Your task to perform on an android device: turn on data saver in the chrome app Image 0: 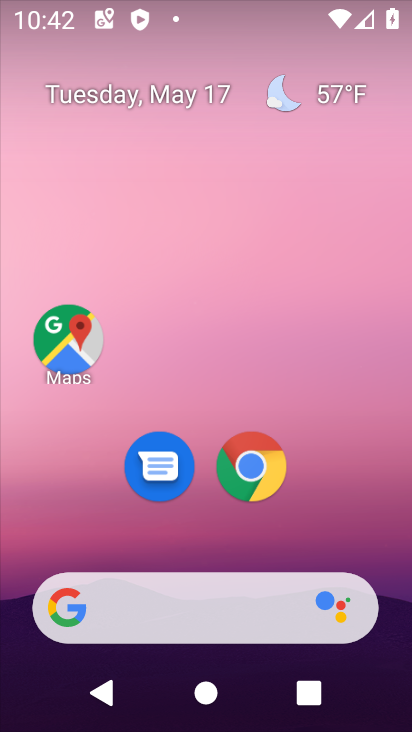
Step 0: drag from (256, 643) to (306, 151)
Your task to perform on an android device: turn on data saver in the chrome app Image 1: 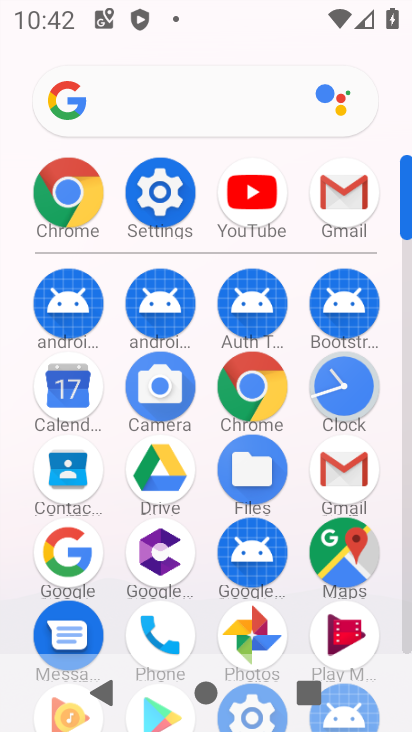
Step 1: click (44, 204)
Your task to perform on an android device: turn on data saver in the chrome app Image 2: 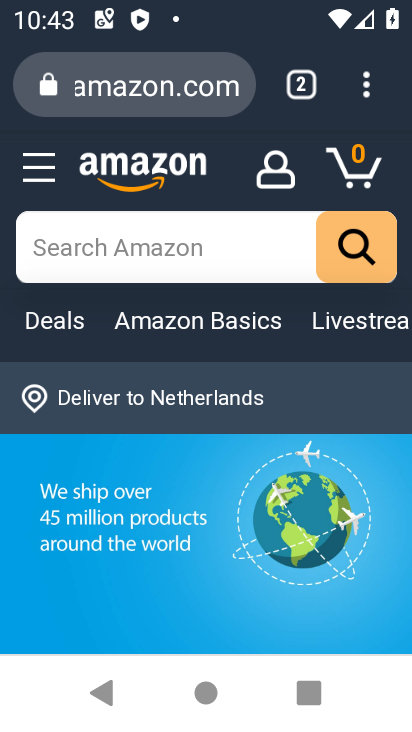
Step 2: click (347, 100)
Your task to perform on an android device: turn on data saver in the chrome app Image 3: 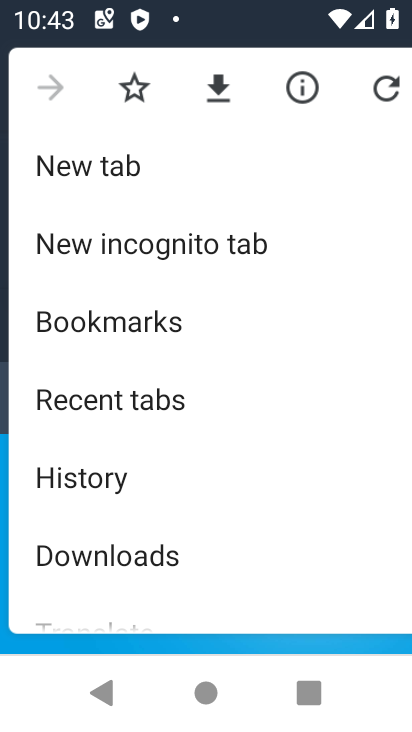
Step 3: drag from (234, 499) to (241, 207)
Your task to perform on an android device: turn on data saver in the chrome app Image 4: 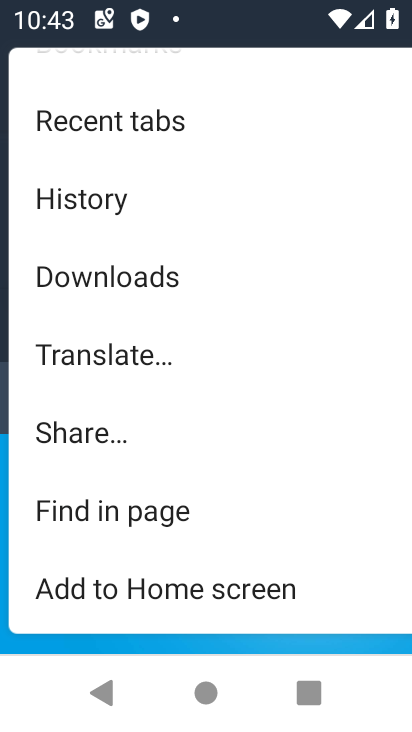
Step 4: drag from (189, 492) to (178, 257)
Your task to perform on an android device: turn on data saver in the chrome app Image 5: 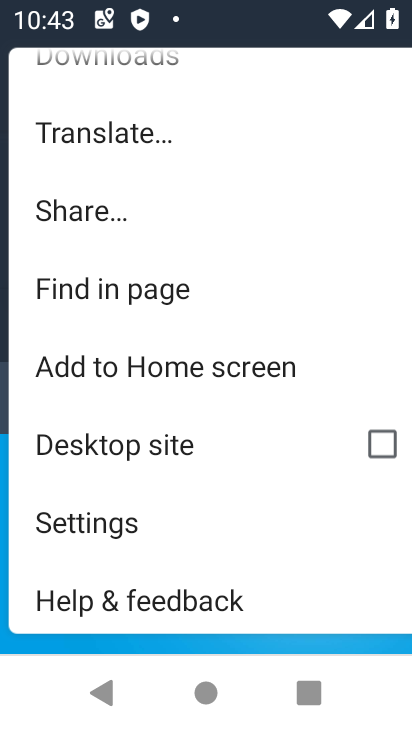
Step 5: click (127, 521)
Your task to perform on an android device: turn on data saver in the chrome app Image 6: 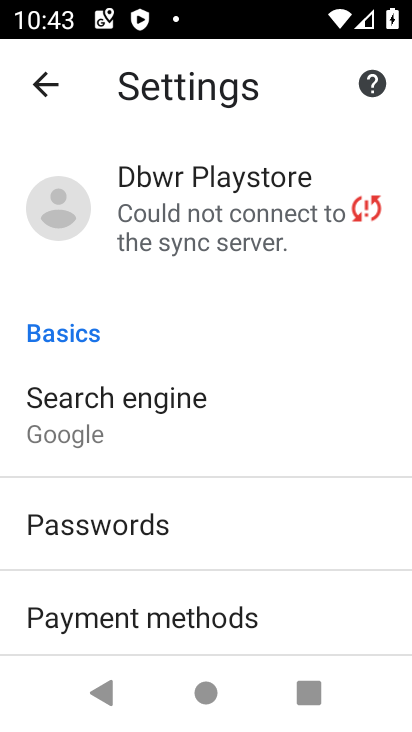
Step 6: drag from (138, 557) to (141, 250)
Your task to perform on an android device: turn on data saver in the chrome app Image 7: 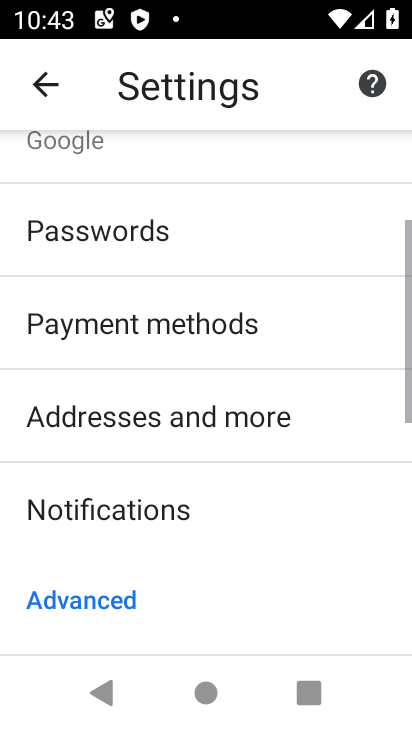
Step 7: click (177, 278)
Your task to perform on an android device: turn on data saver in the chrome app Image 8: 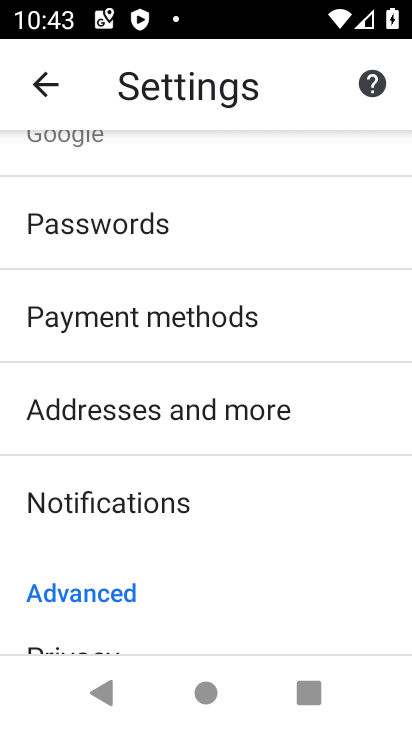
Step 8: drag from (136, 542) to (145, 289)
Your task to perform on an android device: turn on data saver in the chrome app Image 9: 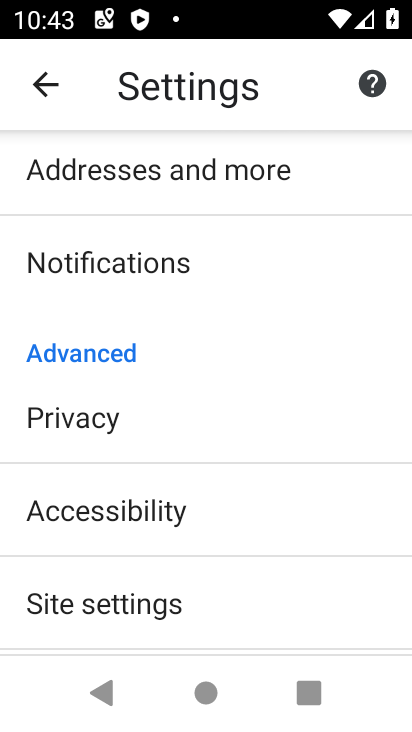
Step 9: drag from (135, 546) to (159, 392)
Your task to perform on an android device: turn on data saver in the chrome app Image 10: 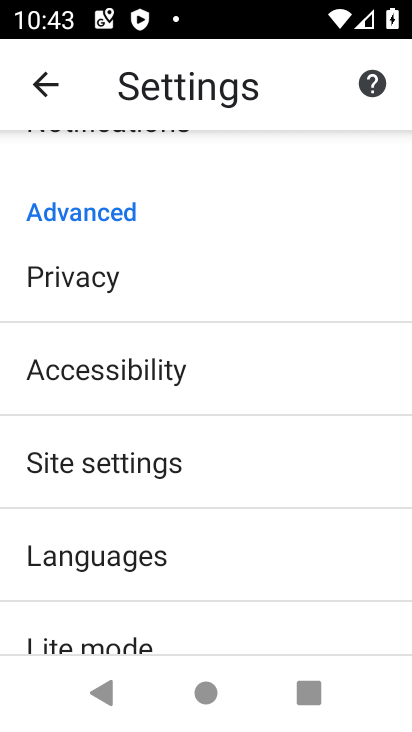
Step 10: drag from (117, 567) to (154, 381)
Your task to perform on an android device: turn on data saver in the chrome app Image 11: 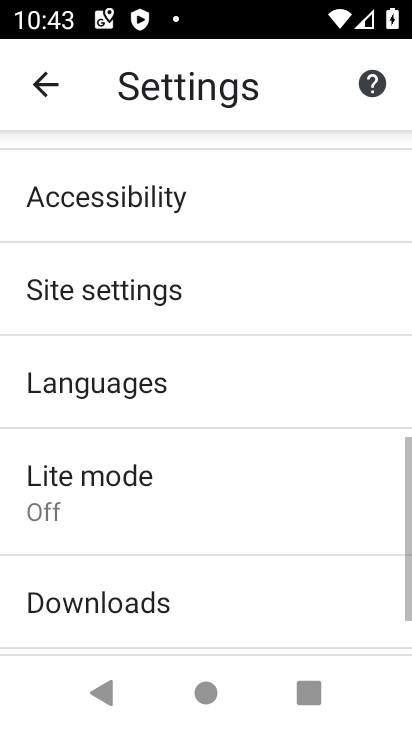
Step 11: click (112, 472)
Your task to perform on an android device: turn on data saver in the chrome app Image 12: 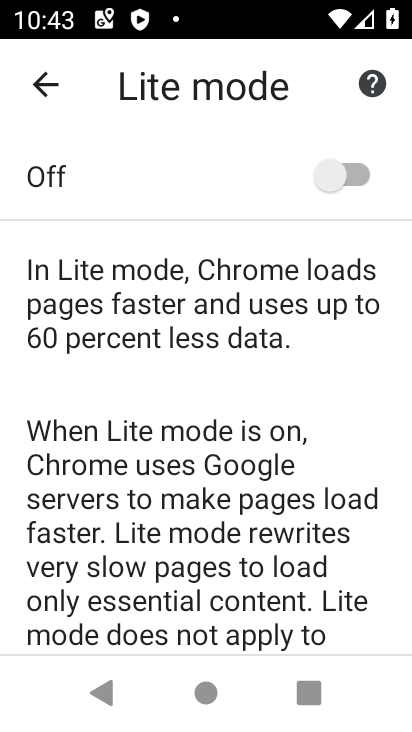
Step 12: click (341, 185)
Your task to perform on an android device: turn on data saver in the chrome app Image 13: 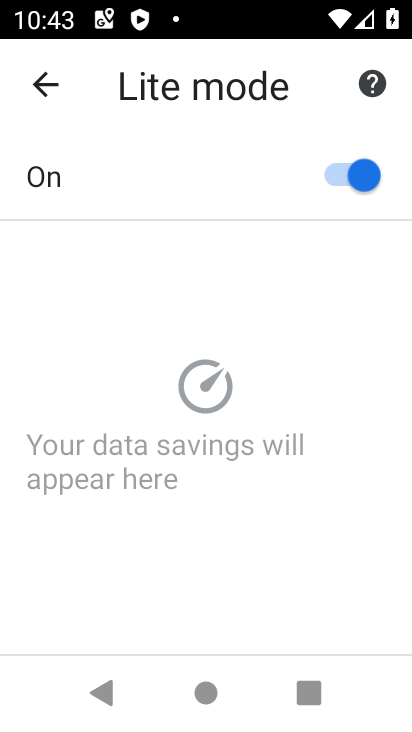
Step 13: task complete